Your task to perform on an android device: Search for seafood restaurants on Google Maps Image 0: 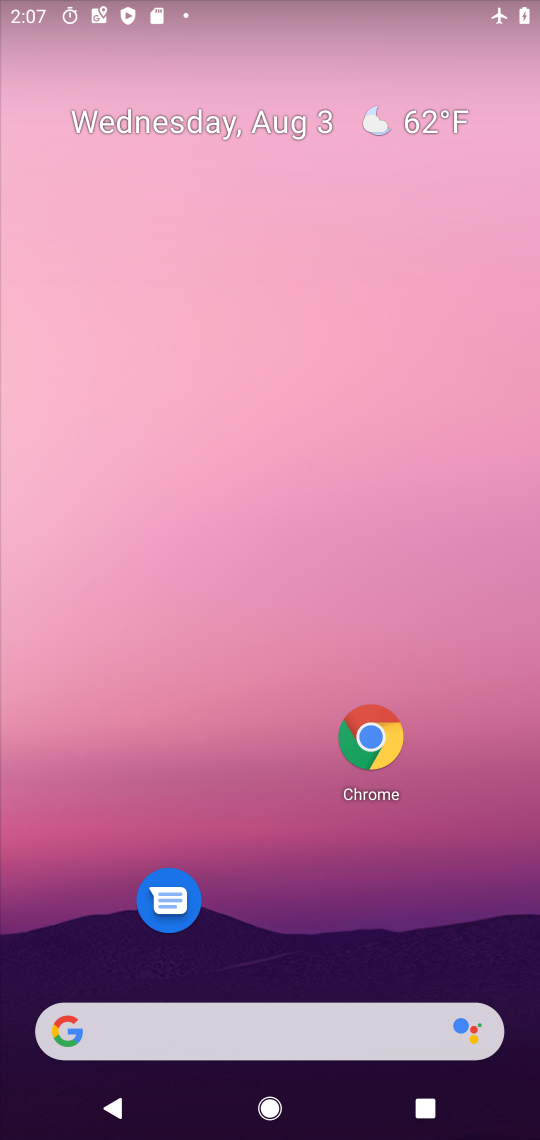
Step 0: drag from (282, 783) to (264, 128)
Your task to perform on an android device: Search for seafood restaurants on Google Maps Image 1: 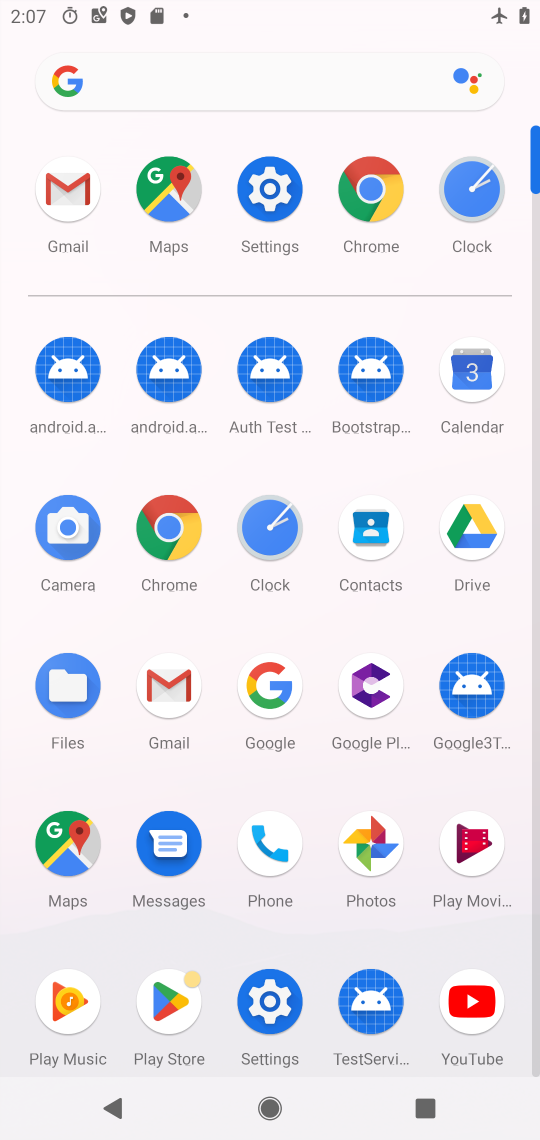
Step 1: click (68, 843)
Your task to perform on an android device: Search for seafood restaurants on Google Maps Image 2: 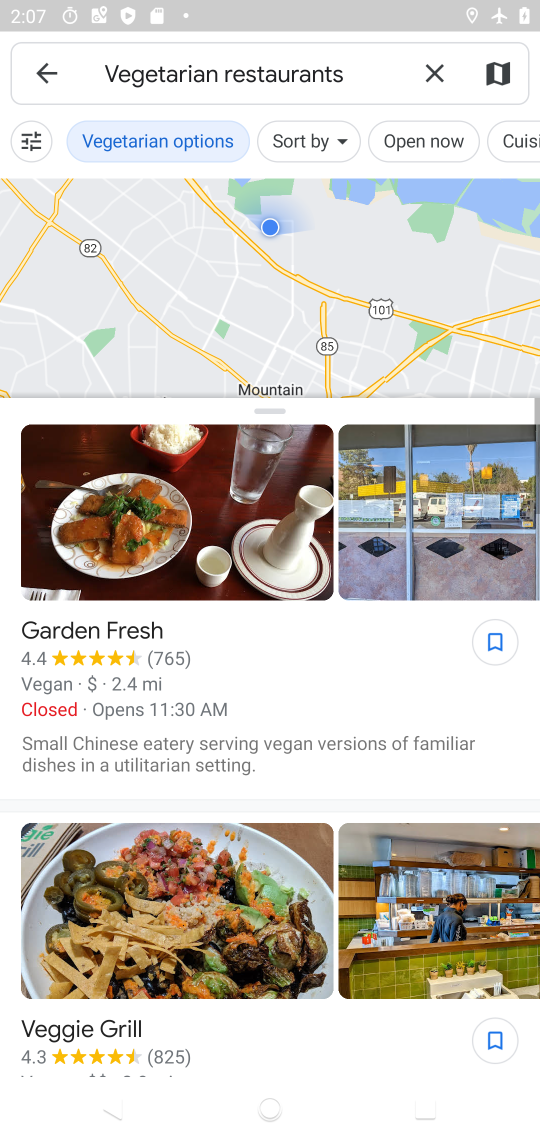
Step 2: click (425, 66)
Your task to perform on an android device: Search for seafood restaurants on Google Maps Image 3: 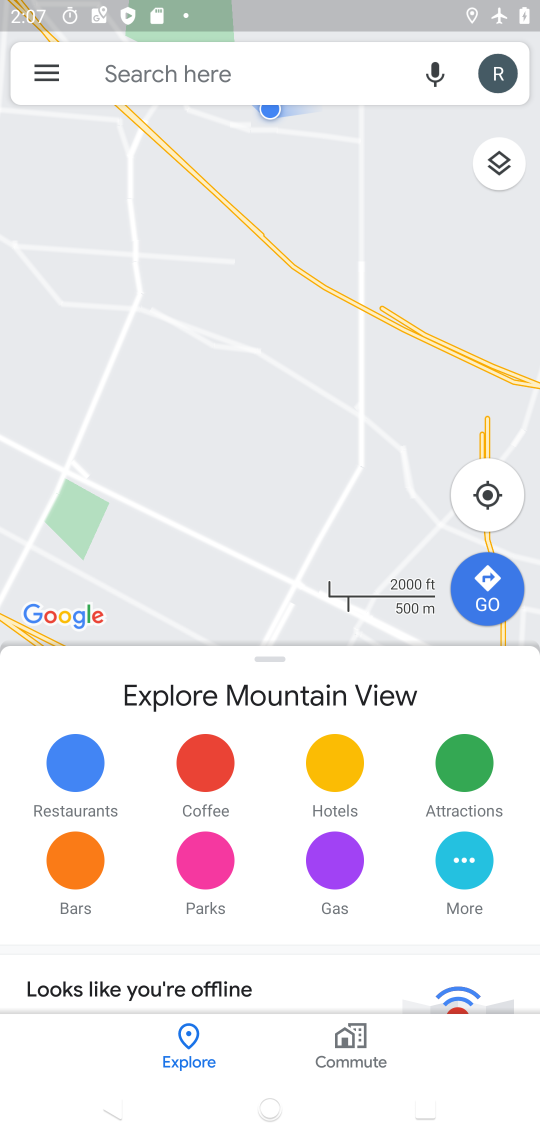
Step 3: click (341, 74)
Your task to perform on an android device: Search for seafood restaurants on Google Maps Image 4: 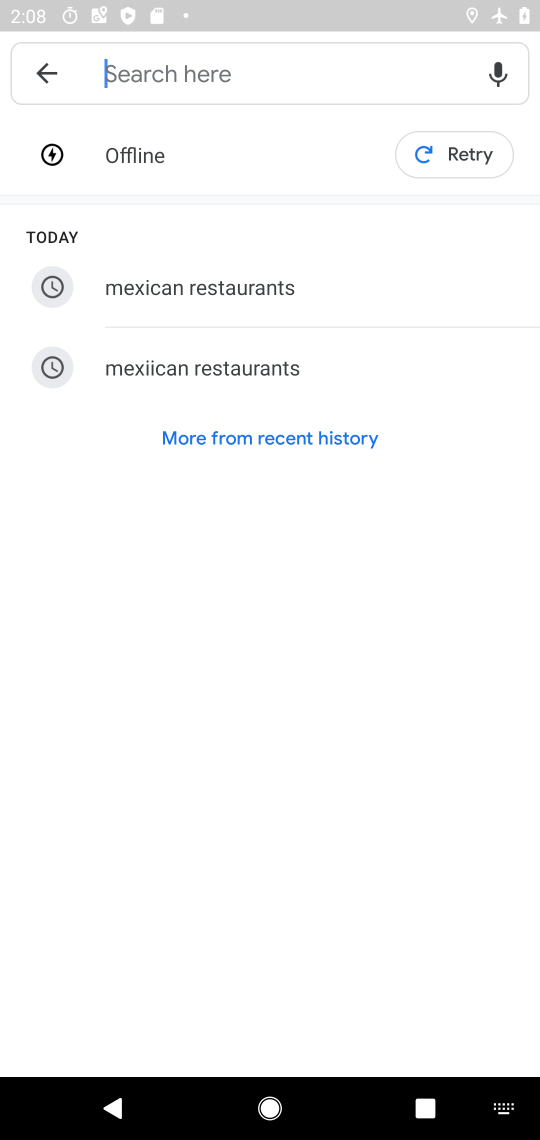
Step 4: type "seafood restaurants"
Your task to perform on an android device: Search for seafood restaurants on Google Maps Image 5: 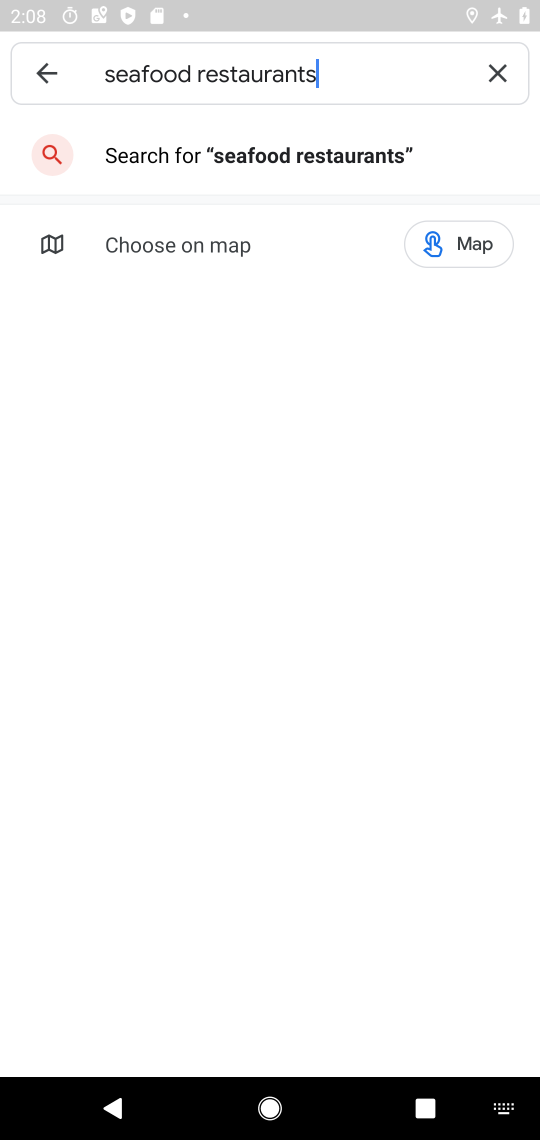
Step 5: press enter
Your task to perform on an android device: Search for seafood restaurants on Google Maps Image 6: 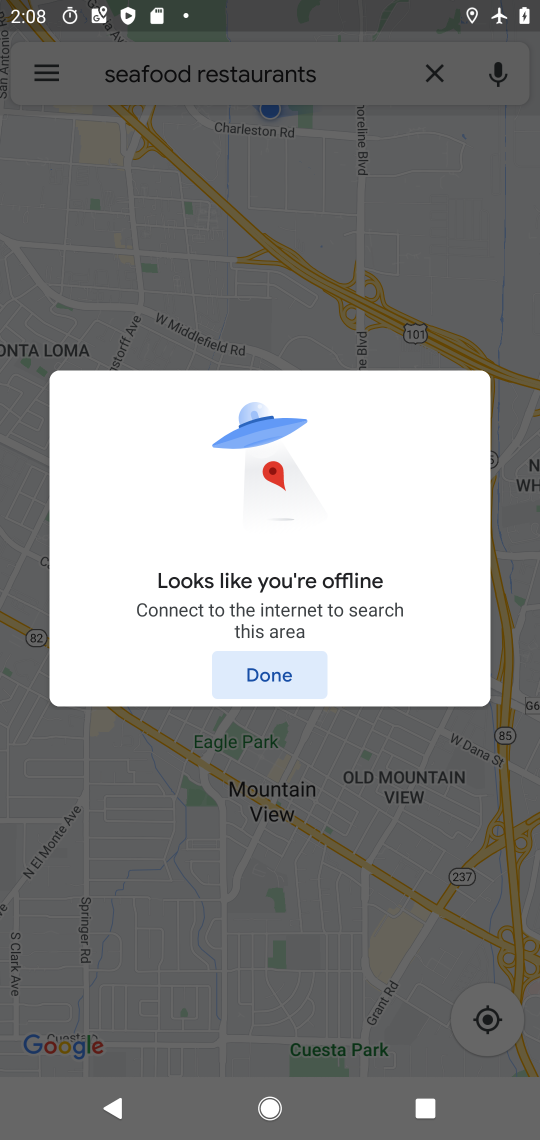
Step 6: task complete